Your task to perform on an android device: Search for sushi restaurants on Maps Image 0: 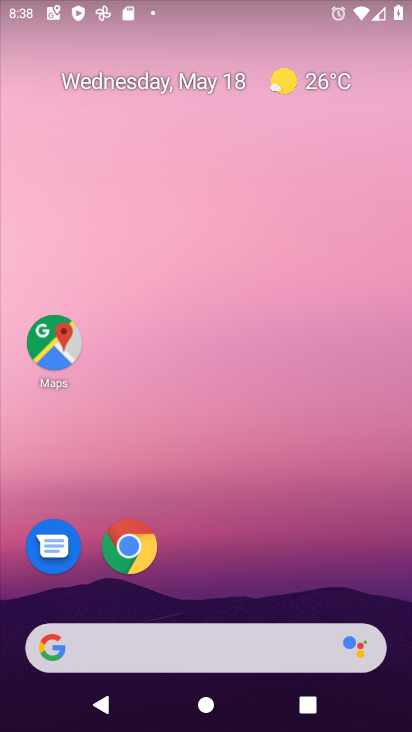
Step 0: drag from (398, 633) to (265, 109)
Your task to perform on an android device: Search for sushi restaurants on Maps Image 1: 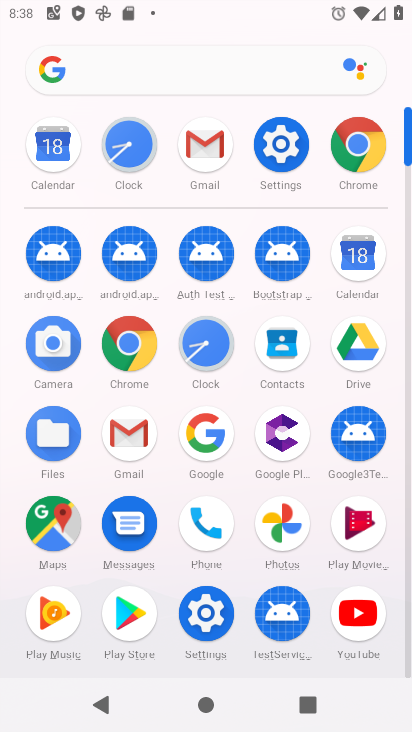
Step 1: click (60, 521)
Your task to perform on an android device: Search for sushi restaurants on Maps Image 2: 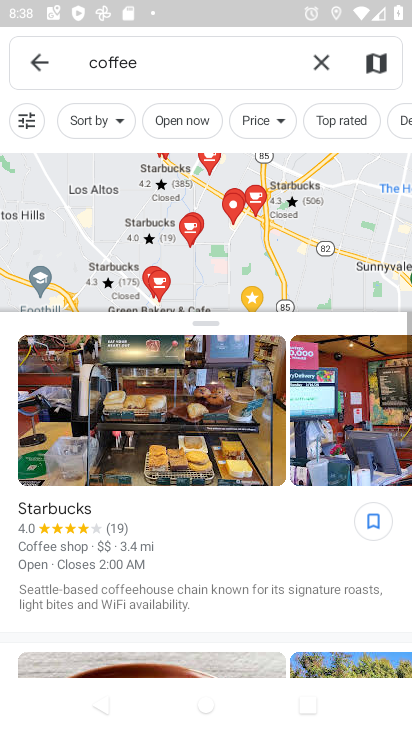
Step 2: click (322, 65)
Your task to perform on an android device: Search for sushi restaurants on Maps Image 3: 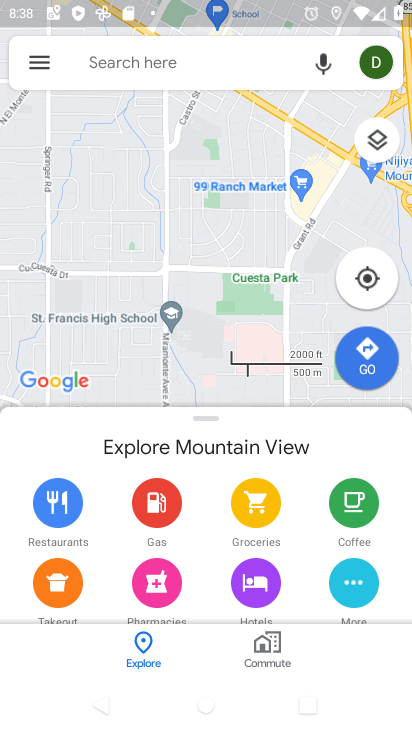
Step 3: click (134, 66)
Your task to perform on an android device: Search for sushi restaurants on Maps Image 4: 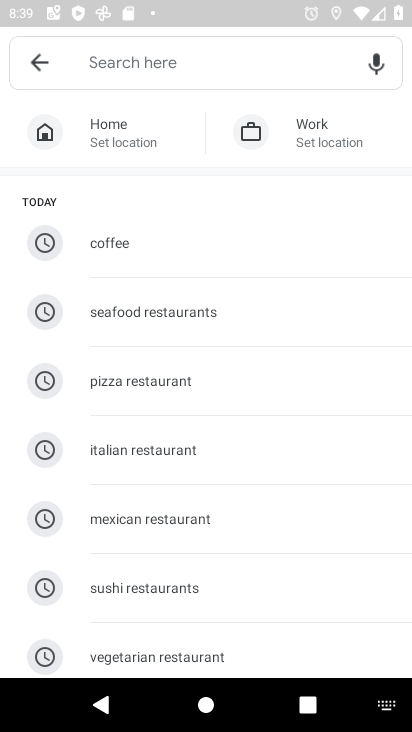
Step 4: click (133, 580)
Your task to perform on an android device: Search for sushi restaurants on Maps Image 5: 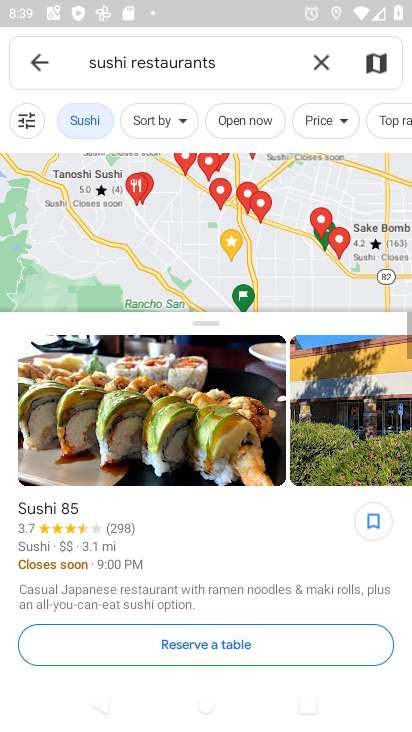
Step 5: task complete